Your task to perform on an android device: Open network settings Image 0: 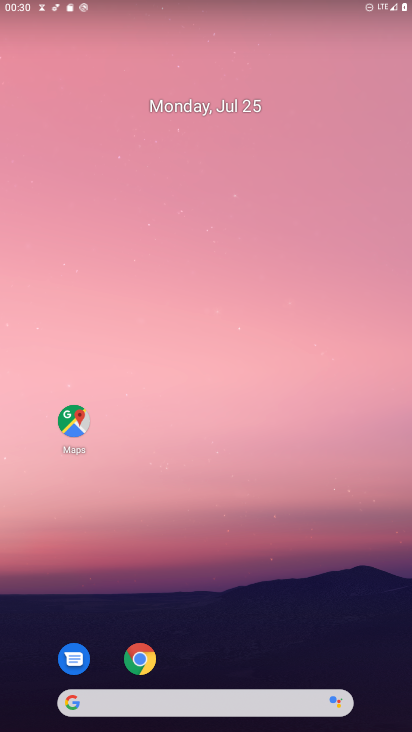
Step 0: drag from (213, 600) to (160, 170)
Your task to perform on an android device: Open network settings Image 1: 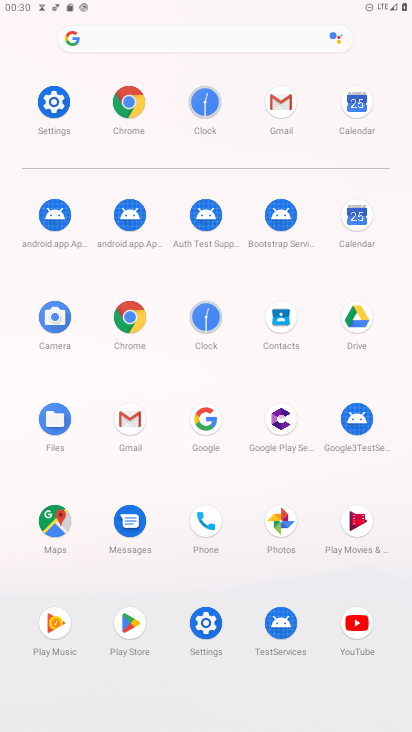
Step 1: click (48, 94)
Your task to perform on an android device: Open network settings Image 2: 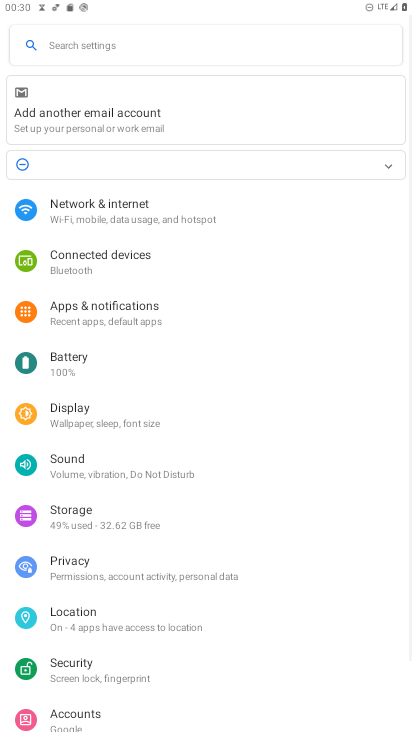
Step 2: click (111, 151)
Your task to perform on an android device: Open network settings Image 3: 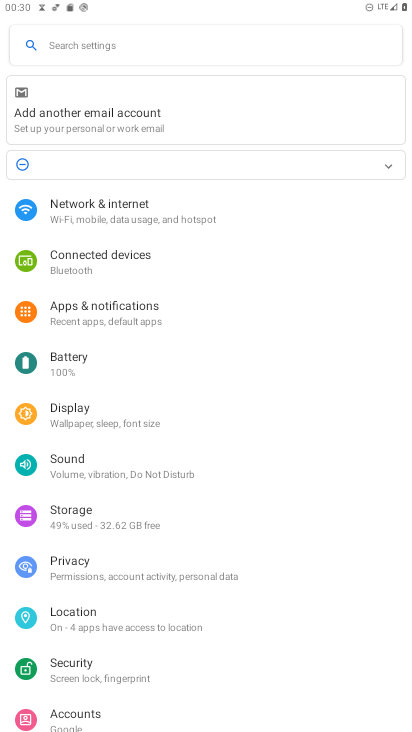
Step 3: click (111, 231)
Your task to perform on an android device: Open network settings Image 4: 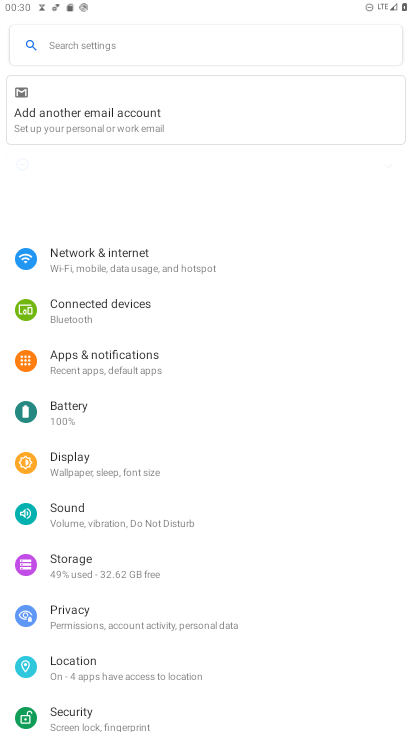
Step 4: click (111, 231)
Your task to perform on an android device: Open network settings Image 5: 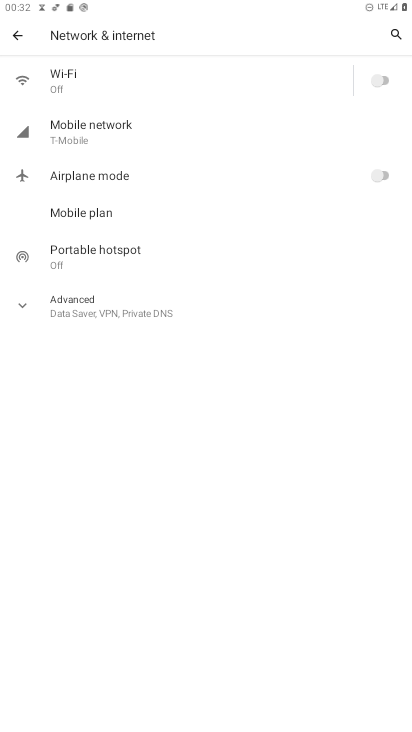
Step 5: task complete